Your task to perform on an android device: Open privacy settings Image 0: 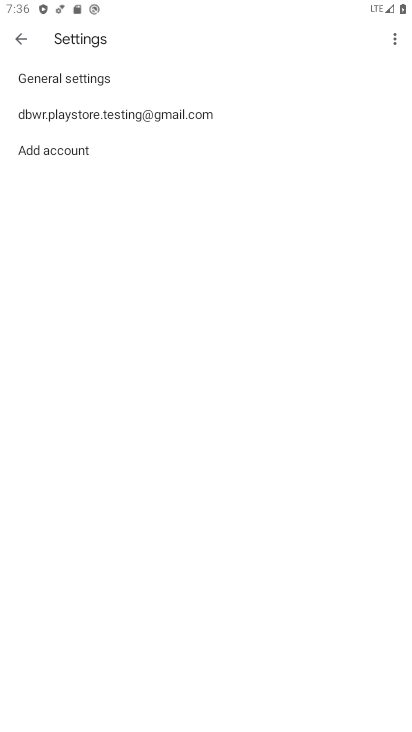
Step 0: press home button
Your task to perform on an android device: Open privacy settings Image 1: 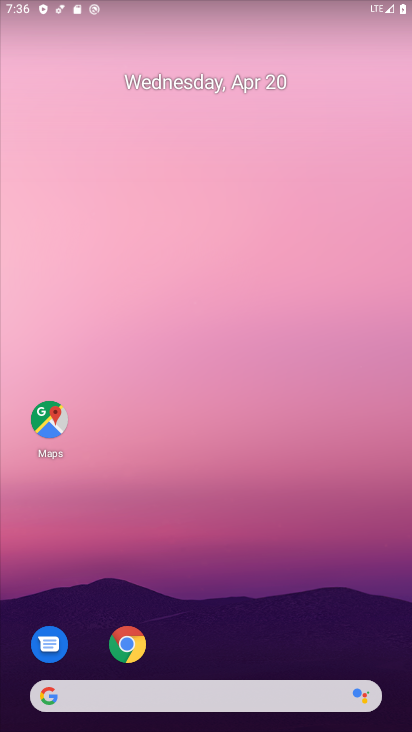
Step 1: drag from (375, 653) to (344, 2)
Your task to perform on an android device: Open privacy settings Image 2: 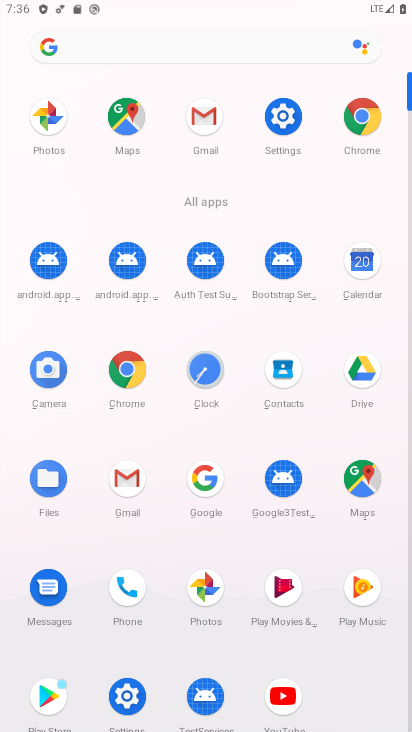
Step 2: click (281, 126)
Your task to perform on an android device: Open privacy settings Image 3: 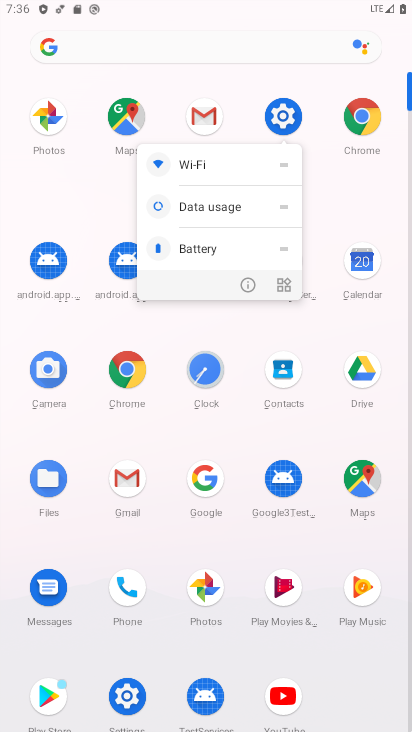
Step 3: click (279, 119)
Your task to perform on an android device: Open privacy settings Image 4: 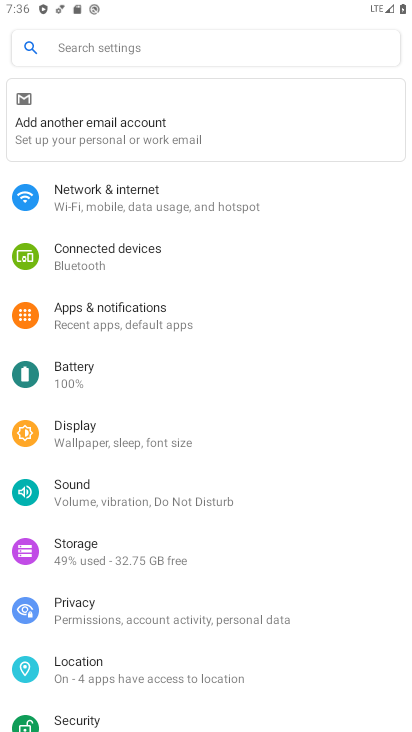
Step 4: click (68, 619)
Your task to perform on an android device: Open privacy settings Image 5: 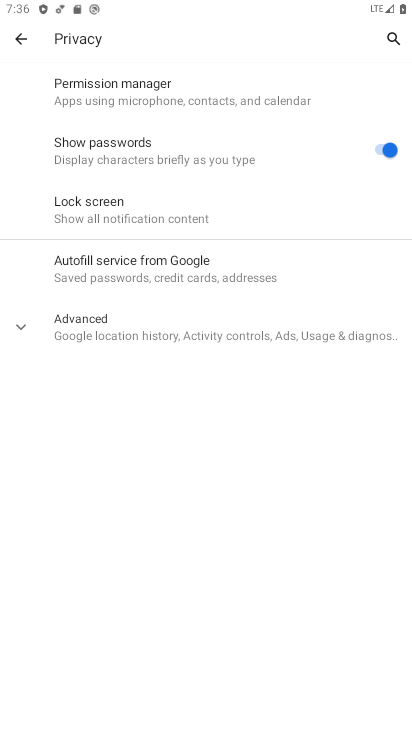
Step 5: task complete